Your task to perform on an android device: open sync settings in chrome Image 0: 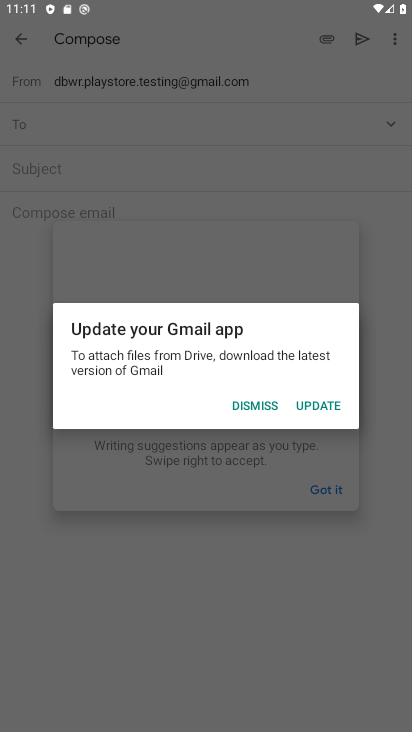
Step 0: press home button
Your task to perform on an android device: open sync settings in chrome Image 1: 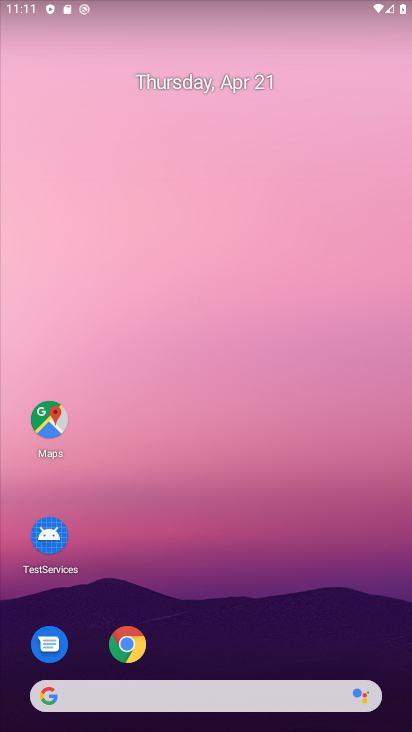
Step 1: drag from (287, 630) to (250, 135)
Your task to perform on an android device: open sync settings in chrome Image 2: 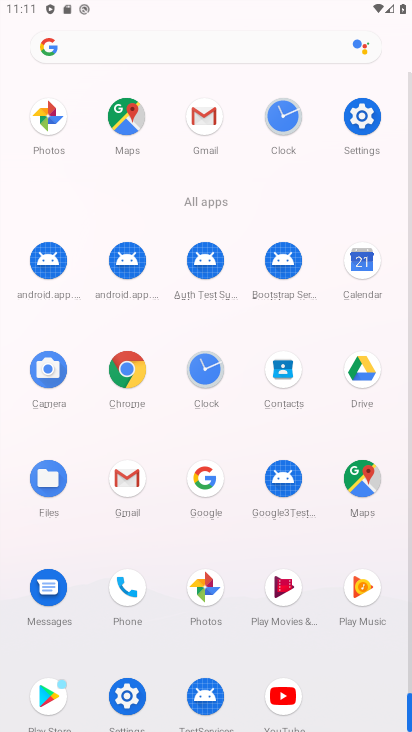
Step 2: click (134, 690)
Your task to perform on an android device: open sync settings in chrome Image 3: 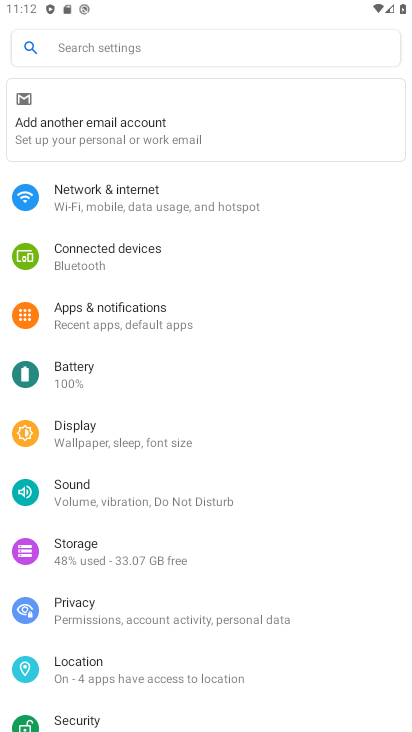
Step 3: drag from (139, 654) to (209, 291)
Your task to perform on an android device: open sync settings in chrome Image 4: 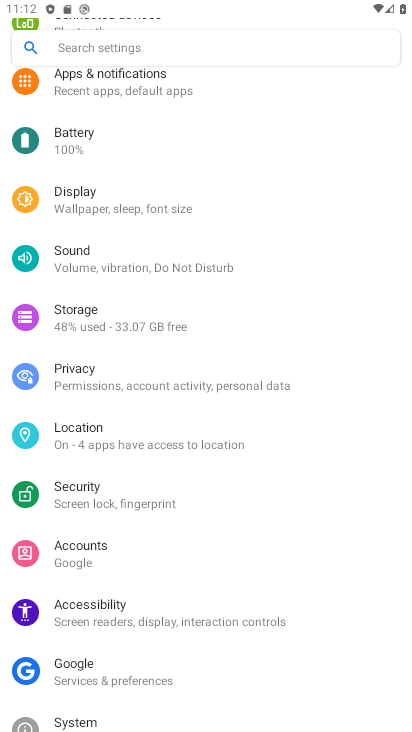
Step 4: press home button
Your task to perform on an android device: open sync settings in chrome Image 5: 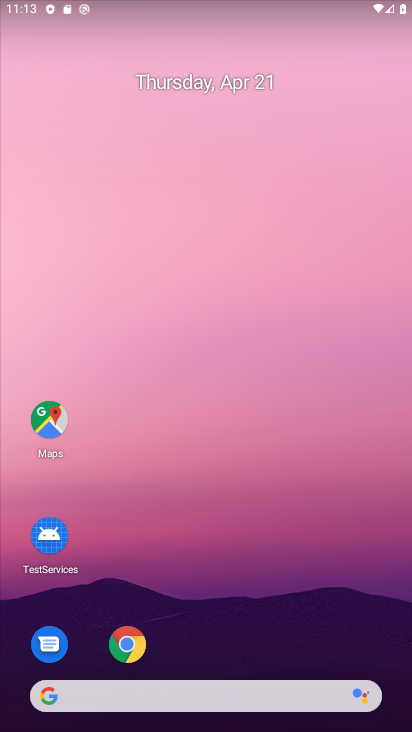
Step 5: drag from (301, 574) to (262, 129)
Your task to perform on an android device: open sync settings in chrome Image 6: 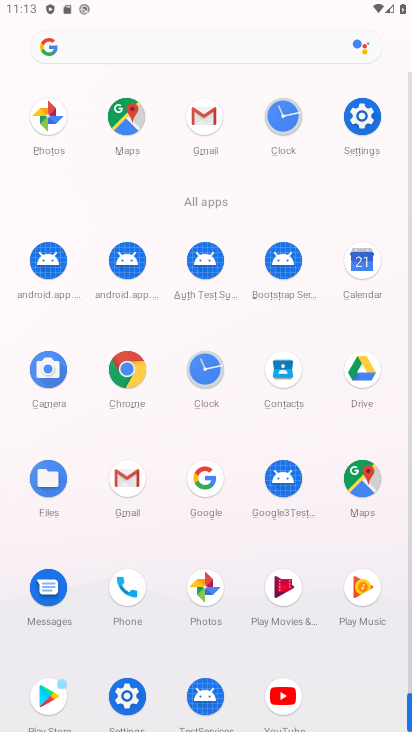
Step 6: click (136, 376)
Your task to perform on an android device: open sync settings in chrome Image 7: 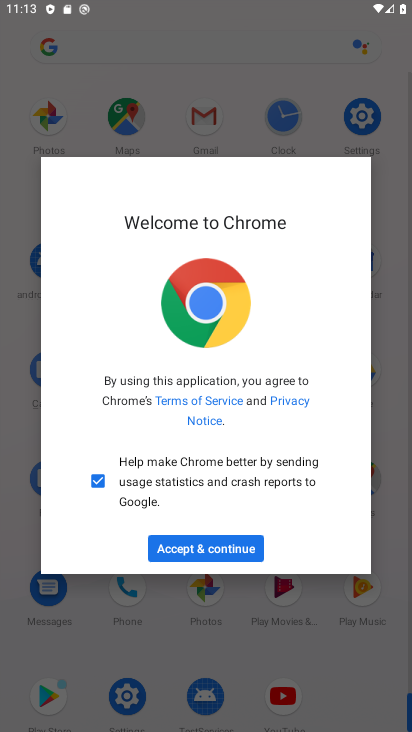
Step 7: click (204, 544)
Your task to perform on an android device: open sync settings in chrome Image 8: 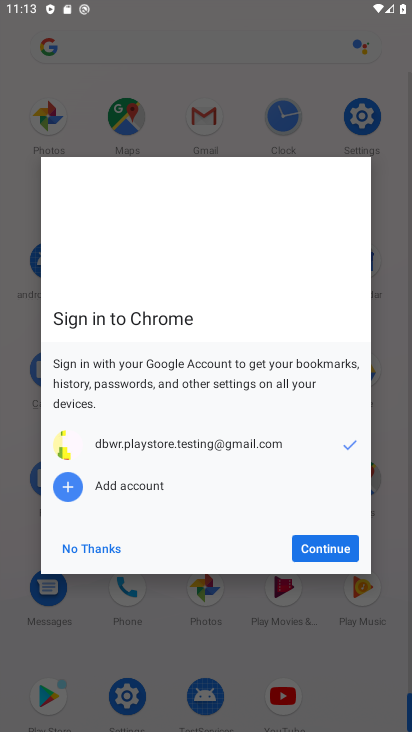
Step 8: click (350, 549)
Your task to perform on an android device: open sync settings in chrome Image 9: 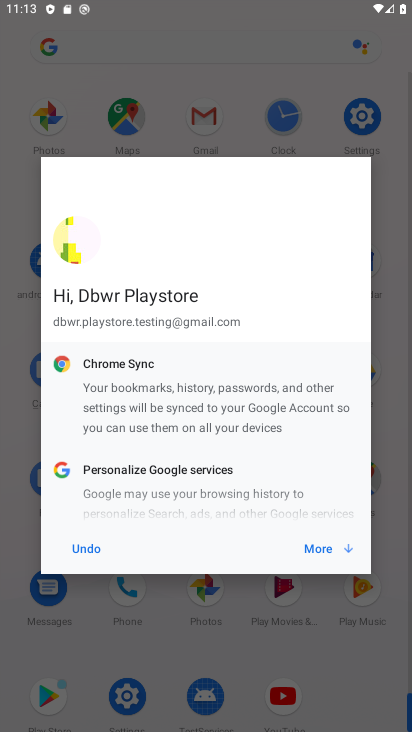
Step 9: click (305, 559)
Your task to perform on an android device: open sync settings in chrome Image 10: 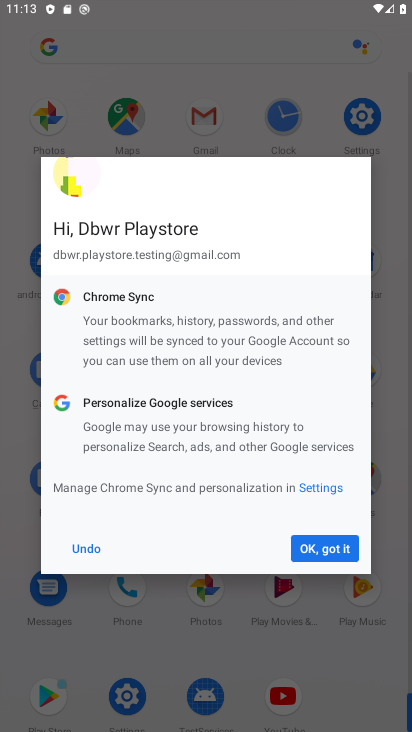
Step 10: click (305, 559)
Your task to perform on an android device: open sync settings in chrome Image 11: 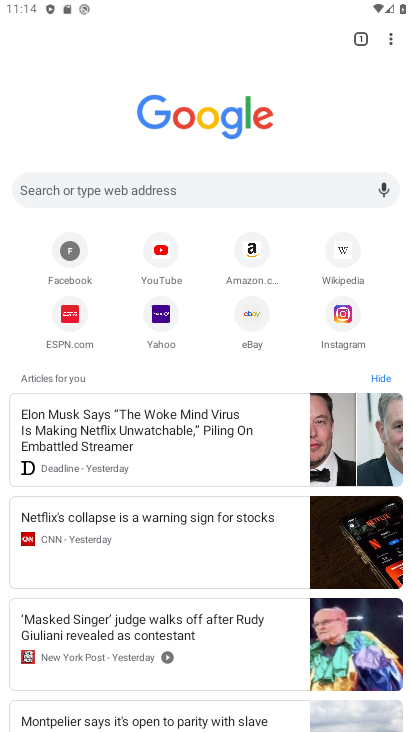
Step 11: drag from (393, 37) to (271, 336)
Your task to perform on an android device: open sync settings in chrome Image 12: 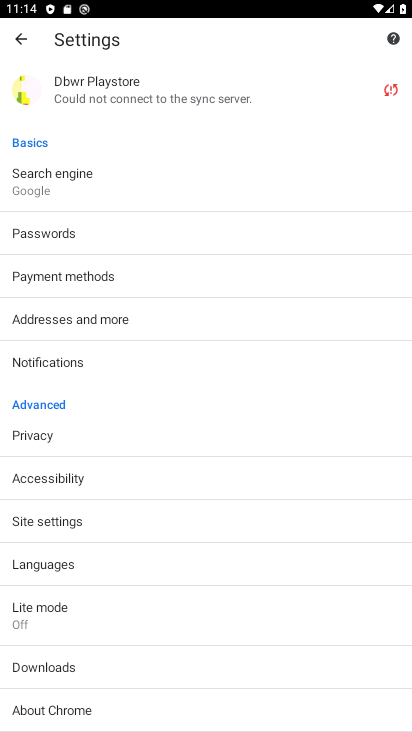
Step 12: drag from (131, 671) to (239, 260)
Your task to perform on an android device: open sync settings in chrome Image 13: 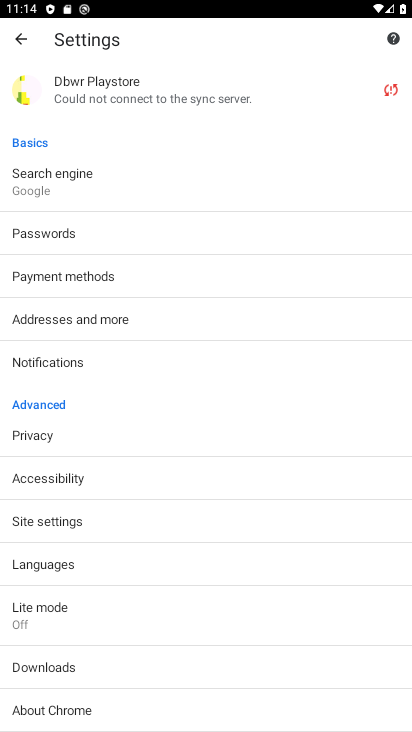
Step 13: drag from (143, 633) to (229, 265)
Your task to perform on an android device: open sync settings in chrome Image 14: 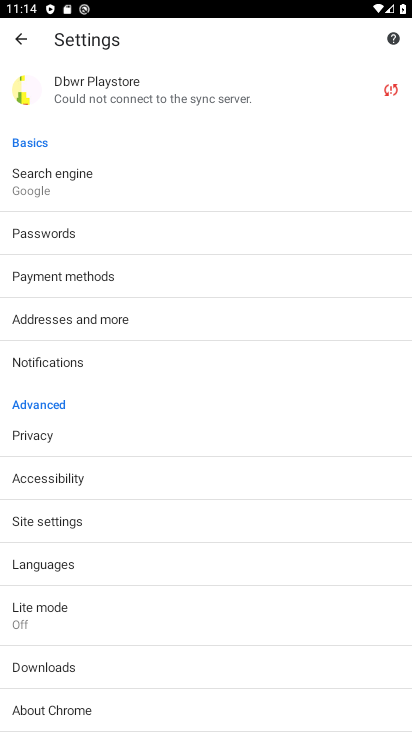
Step 14: click (77, 104)
Your task to perform on an android device: open sync settings in chrome Image 15: 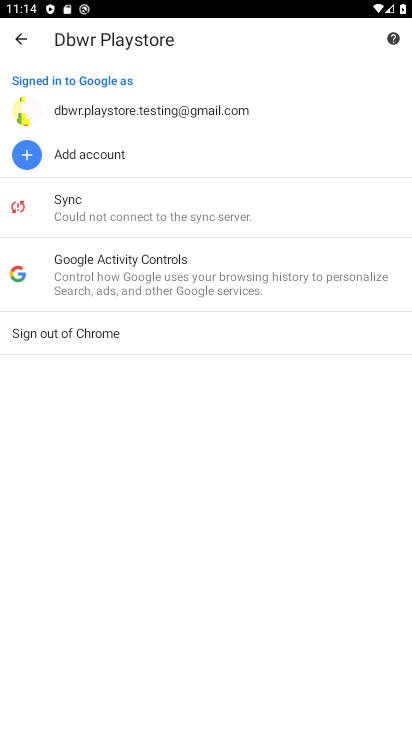
Step 15: click (88, 225)
Your task to perform on an android device: open sync settings in chrome Image 16: 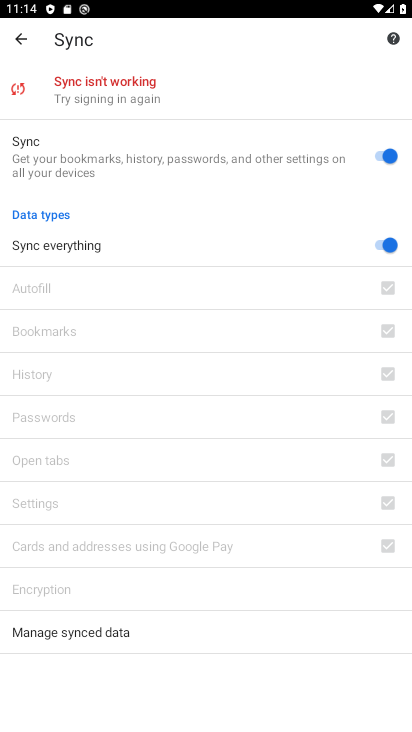
Step 16: task complete